Your task to perform on an android device: Open the Play Movies app and select the watchlist tab. Image 0: 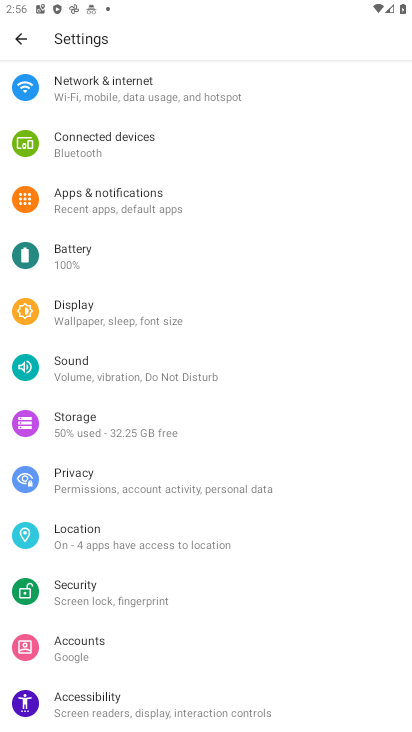
Step 0: press home button
Your task to perform on an android device: Open the Play Movies app and select the watchlist tab. Image 1: 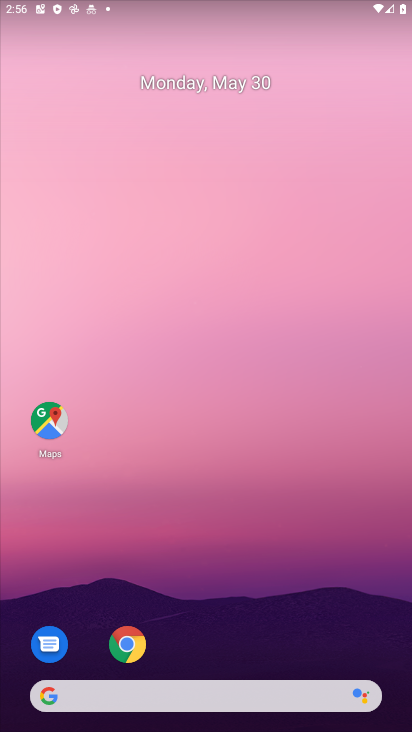
Step 1: drag from (294, 612) to (234, 45)
Your task to perform on an android device: Open the Play Movies app and select the watchlist tab. Image 2: 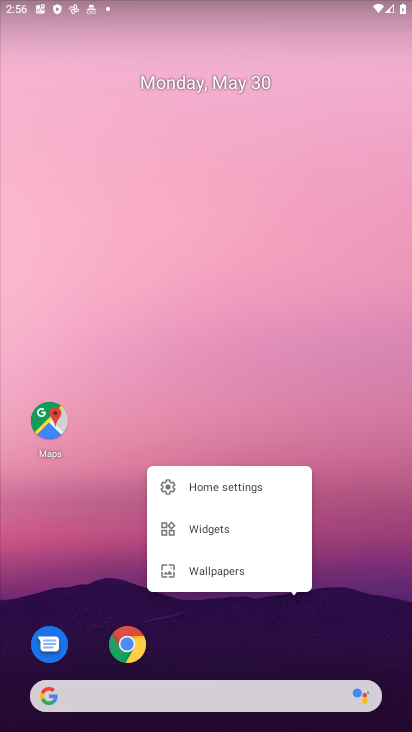
Step 2: click (345, 640)
Your task to perform on an android device: Open the Play Movies app and select the watchlist tab. Image 3: 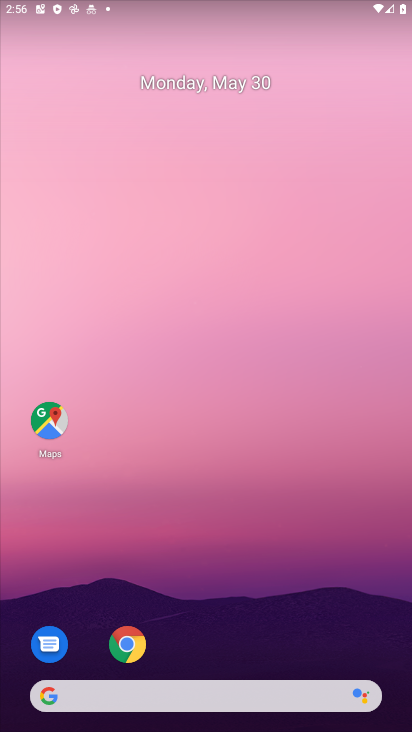
Step 3: drag from (345, 640) to (280, 2)
Your task to perform on an android device: Open the Play Movies app and select the watchlist tab. Image 4: 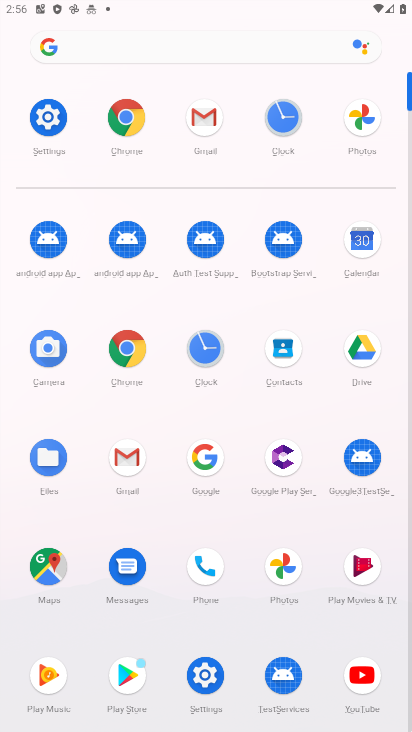
Step 4: click (363, 580)
Your task to perform on an android device: Open the Play Movies app and select the watchlist tab. Image 5: 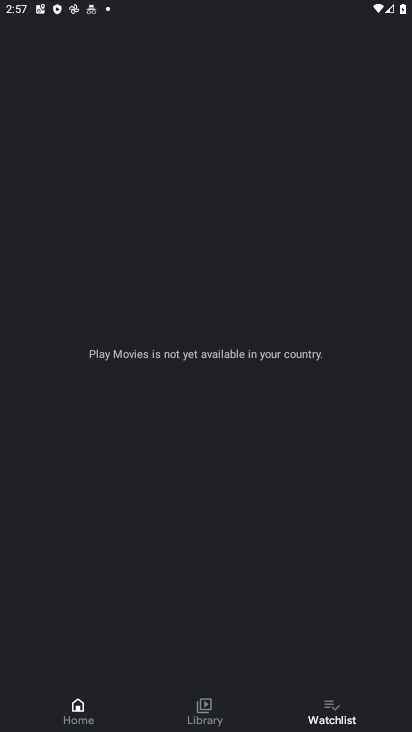
Step 5: click (366, 700)
Your task to perform on an android device: Open the Play Movies app and select the watchlist tab. Image 6: 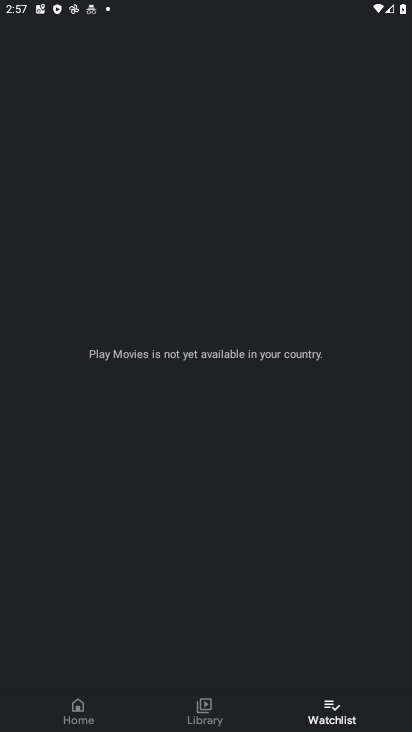
Step 6: task complete